Your task to perform on an android device: Clear the shopping cart on amazon.com. Add "asus rog" to the cart on amazon.com, then select checkout. Image 0: 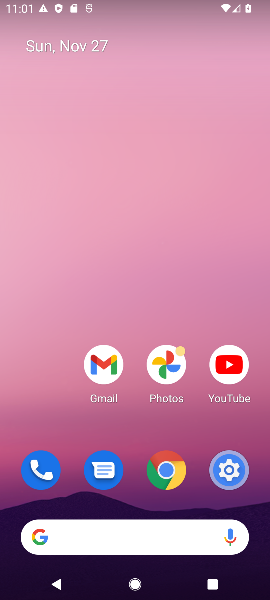
Step 0: click (132, 538)
Your task to perform on an android device: Clear the shopping cart on amazon.com. Add "asus rog" to the cart on amazon.com, then select checkout. Image 1: 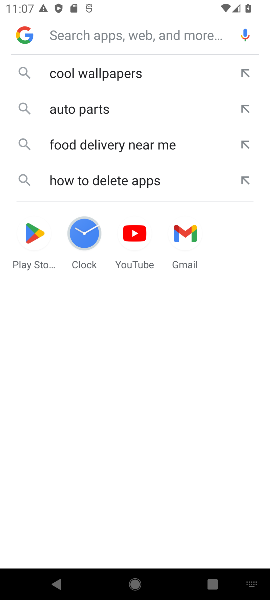
Step 1: type "amazon.com"
Your task to perform on an android device: Clear the shopping cart on amazon.com. Add "asus rog" to the cart on amazon.com, then select checkout. Image 2: 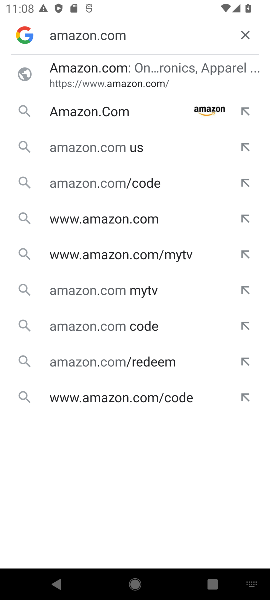
Step 2: click (115, 87)
Your task to perform on an android device: Clear the shopping cart on amazon.com. Add "asus rog" to the cart on amazon.com, then select checkout. Image 3: 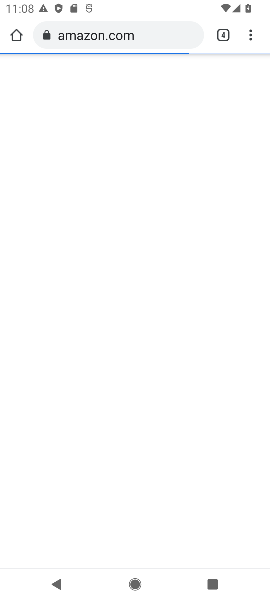
Step 3: task complete